Your task to perform on an android device: What's the weather? Image 0: 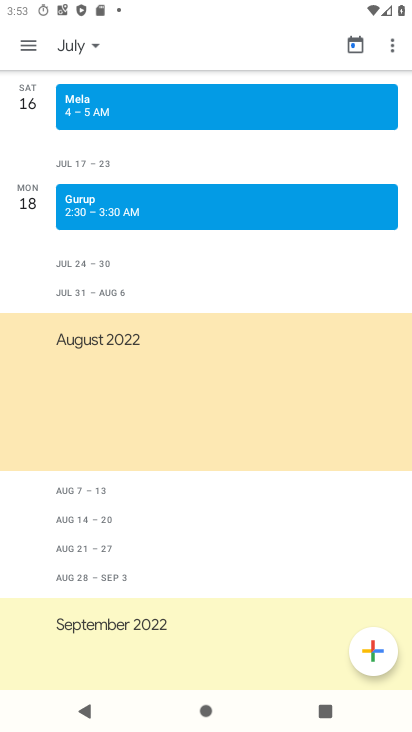
Step 0: press home button
Your task to perform on an android device: What's the weather? Image 1: 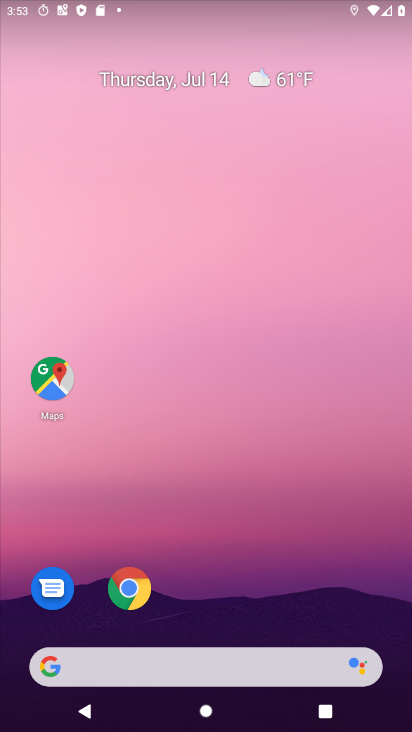
Step 1: drag from (199, 668) to (256, 229)
Your task to perform on an android device: What's the weather? Image 2: 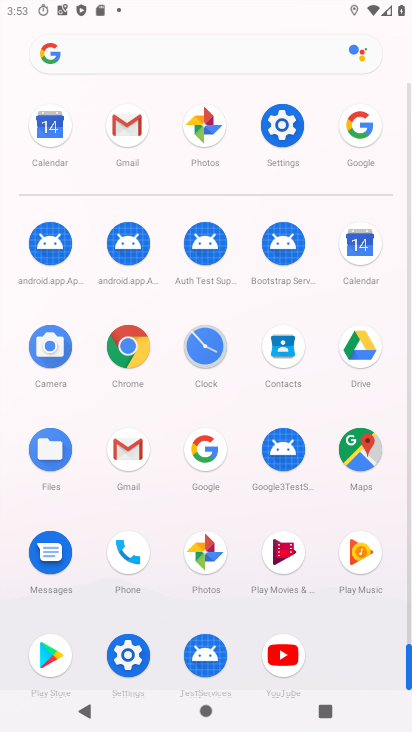
Step 2: click (203, 449)
Your task to perform on an android device: What's the weather? Image 3: 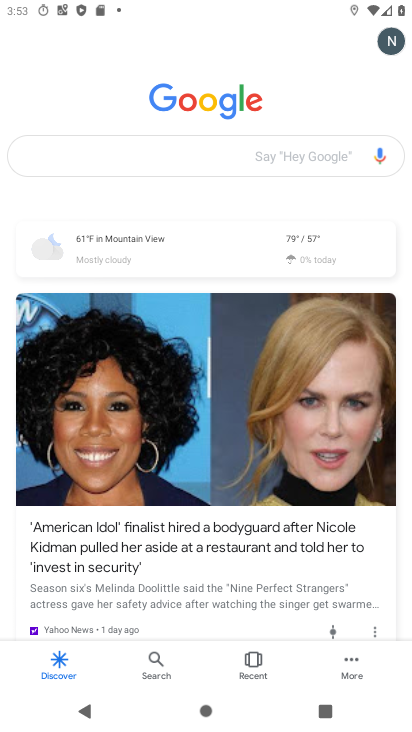
Step 3: click (135, 252)
Your task to perform on an android device: What's the weather? Image 4: 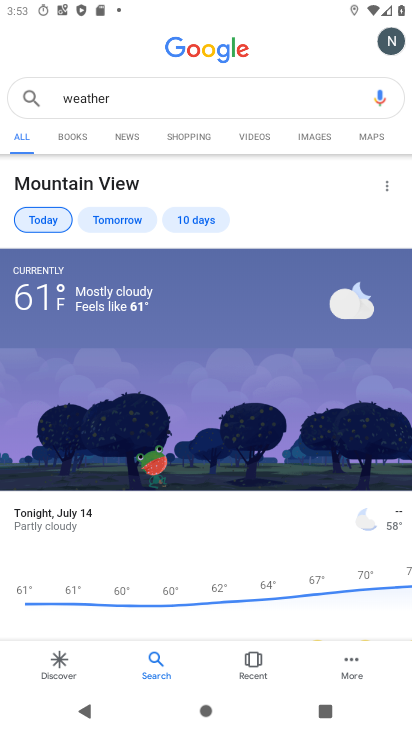
Step 4: task complete